Your task to perform on an android device: Do I have any events tomorrow? Image 0: 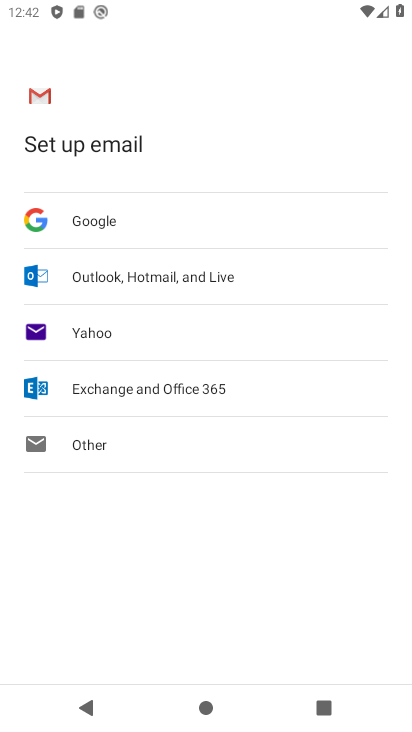
Step 0: press home button
Your task to perform on an android device: Do I have any events tomorrow? Image 1: 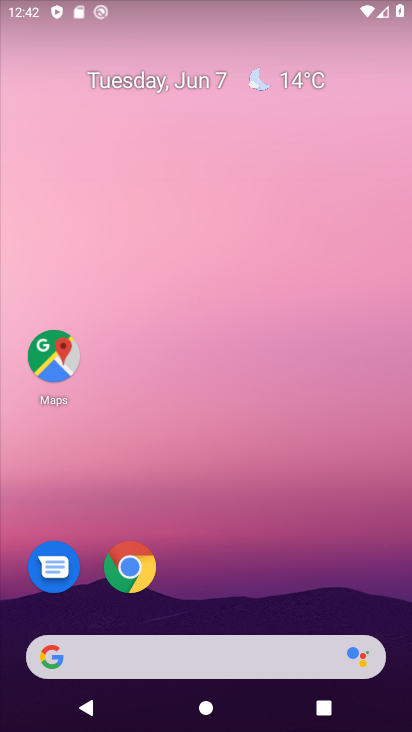
Step 1: drag from (257, 586) to (260, 69)
Your task to perform on an android device: Do I have any events tomorrow? Image 2: 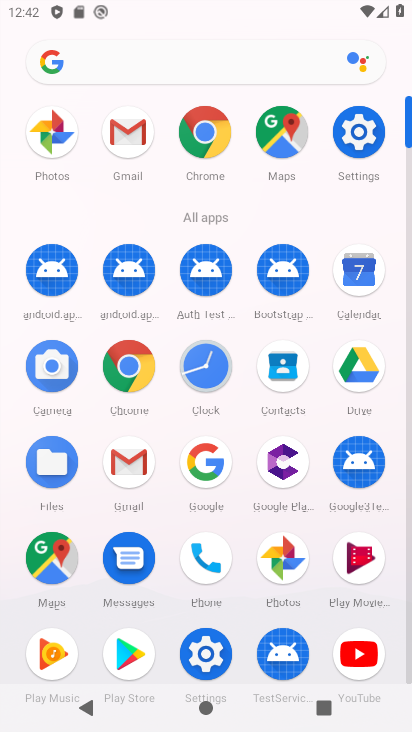
Step 2: click (360, 286)
Your task to perform on an android device: Do I have any events tomorrow? Image 3: 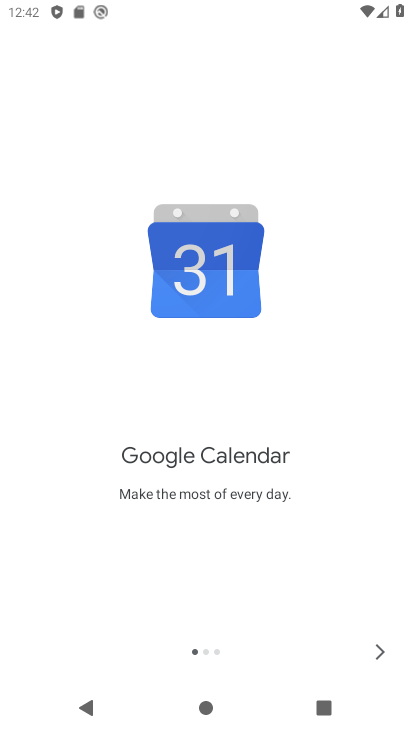
Step 3: click (375, 647)
Your task to perform on an android device: Do I have any events tomorrow? Image 4: 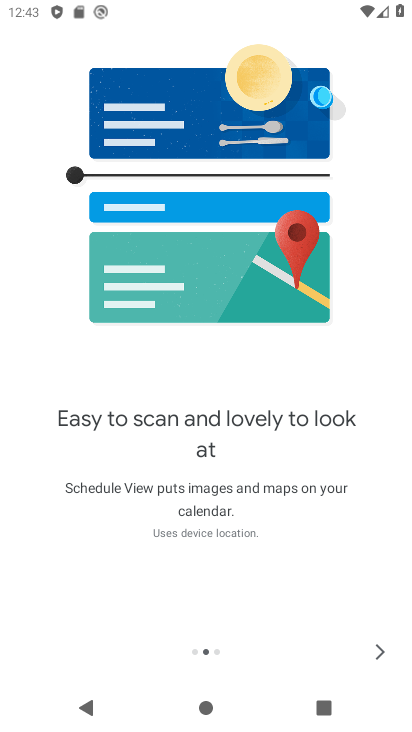
Step 4: click (379, 656)
Your task to perform on an android device: Do I have any events tomorrow? Image 5: 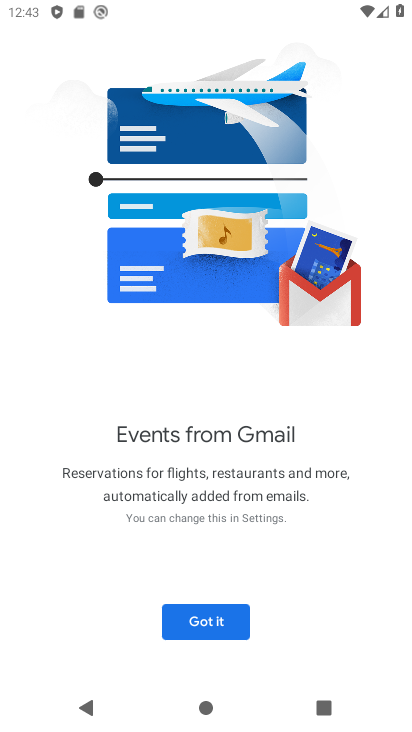
Step 5: click (194, 630)
Your task to perform on an android device: Do I have any events tomorrow? Image 6: 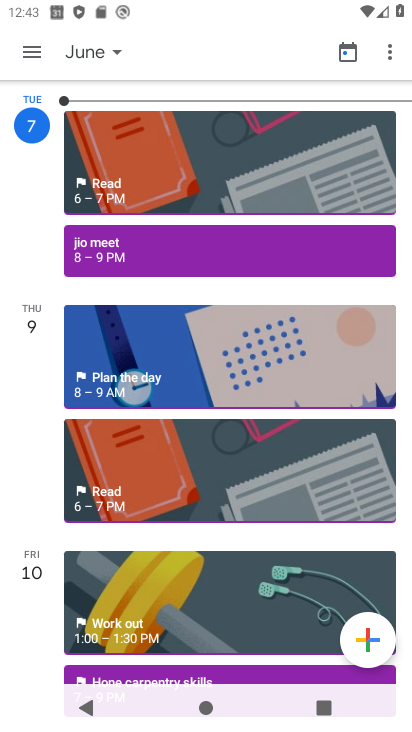
Step 6: click (99, 56)
Your task to perform on an android device: Do I have any events tomorrow? Image 7: 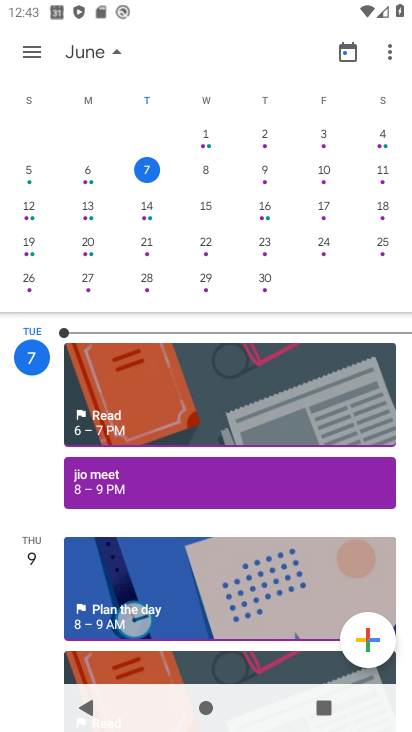
Step 7: click (211, 176)
Your task to perform on an android device: Do I have any events tomorrow? Image 8: 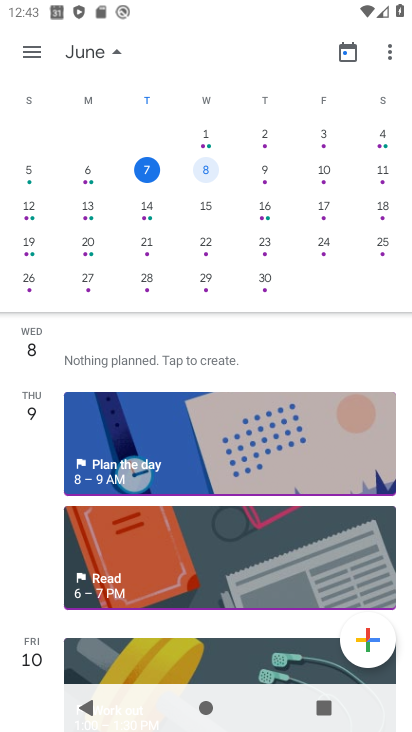
Step 8: task complete